Your task to perform on an android device: change timer sound Image 0: 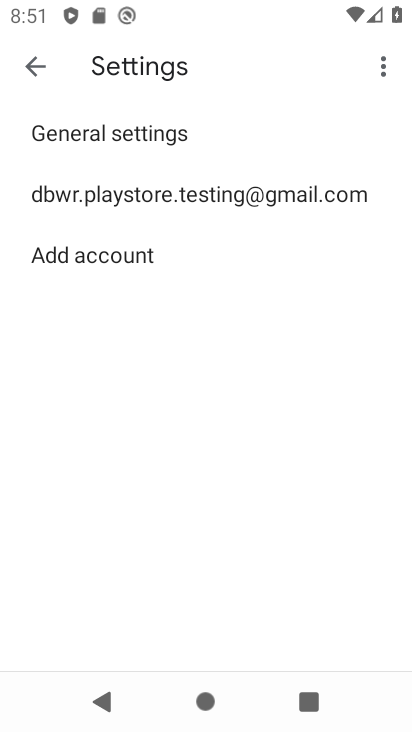
Step 0: press home button
Your task to perform on an android device: change timer sound Image 1: 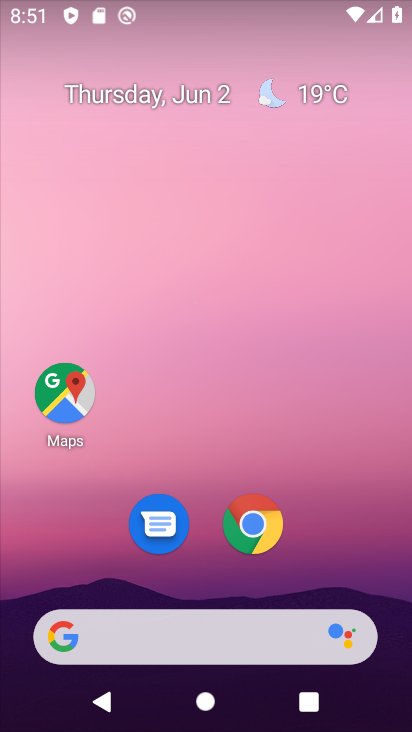
Step 1: drag from (313, 570) to (299, 32)
Your task to perform on an android device: change timer sound Image 2: 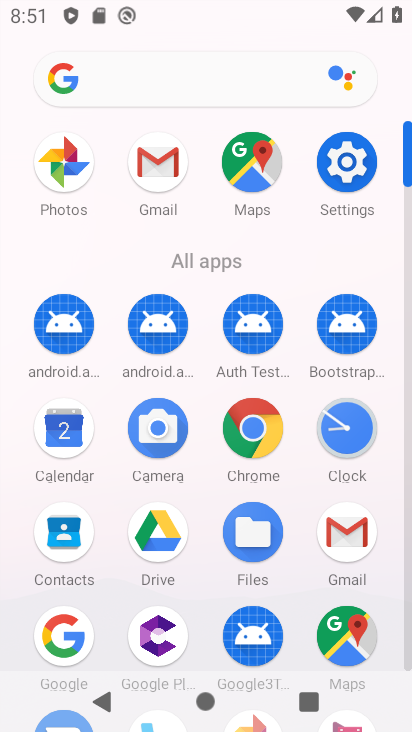
Step 2: click (352, 414)
Your task to perform on an android device: change timer sound Image 3: 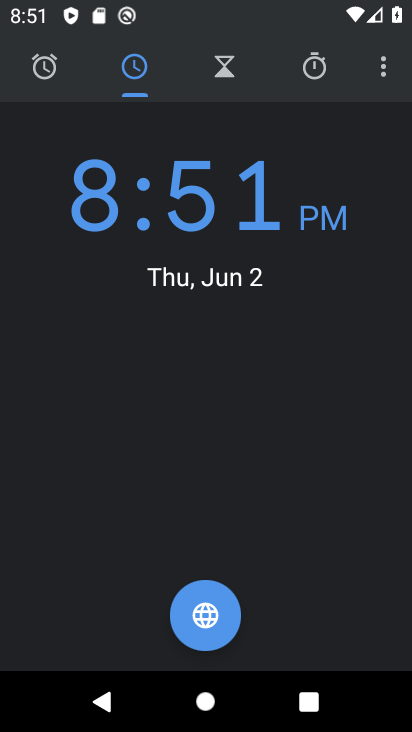
Step 3: click (380, 66)
Your task to perform on an android device: change timer sound Image 4: 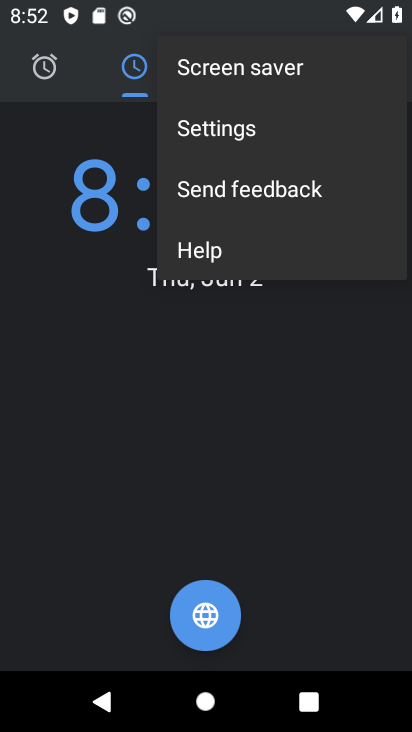
Step 4: click (300, 127)
Your task to perform on an android device: change timer sound Image 5: 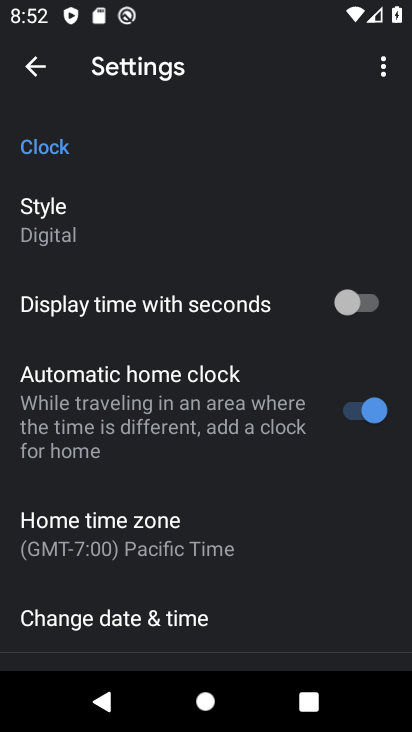
Step 5: drag from (244, 517) to (295, 72)
Your task to perform on an android device: change timer sound Image 6: 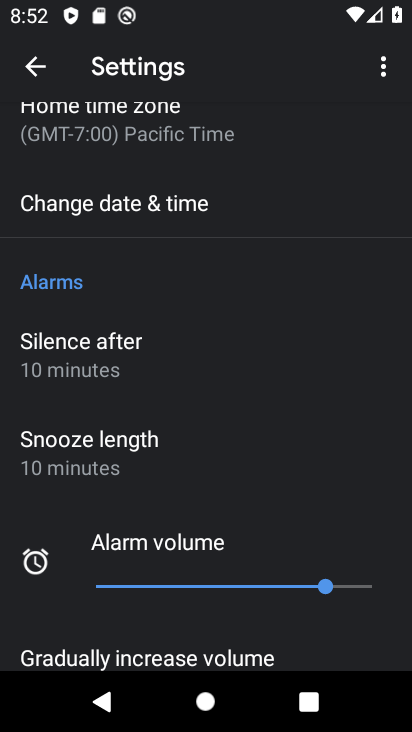
Step 6: drag from (266, 440) to (325, 62)
Your task to perform on an android device: change timer sound Image 7: 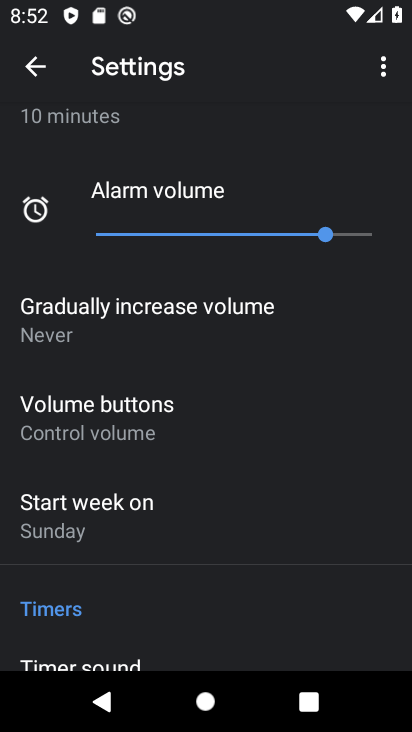
Step 7: drag from (221, 484) to (247, 261)
Your task to perform on an android device: change timer sound Image 8: 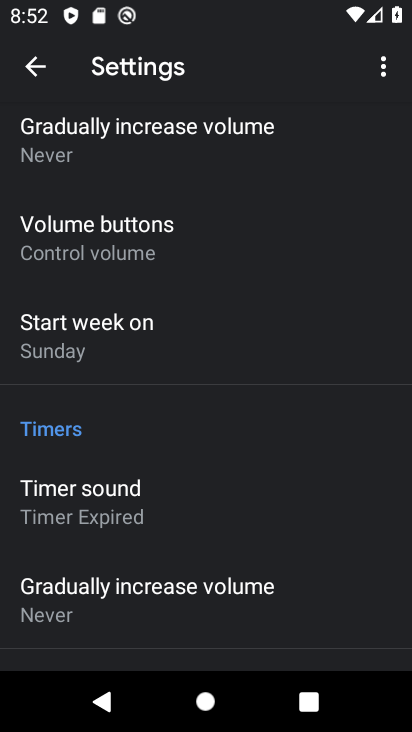
Step 8: click (148, 483)
Your task to perform on an android device: change timer sound Image 9: 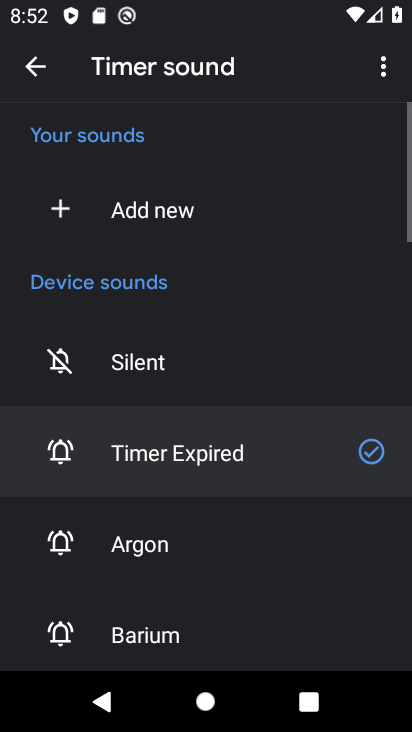
Step 9: click (155, 551)
Your task to perform on an android device: change timer sound Image 10: 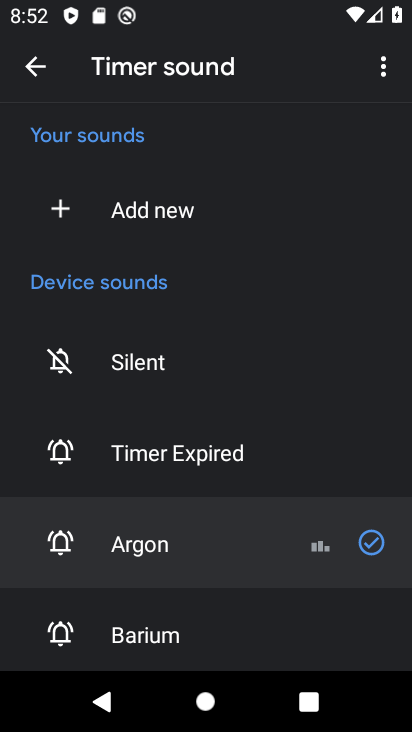
Step 10: task complete